Your task to perform on an android device: Open wifi settings Image 0: 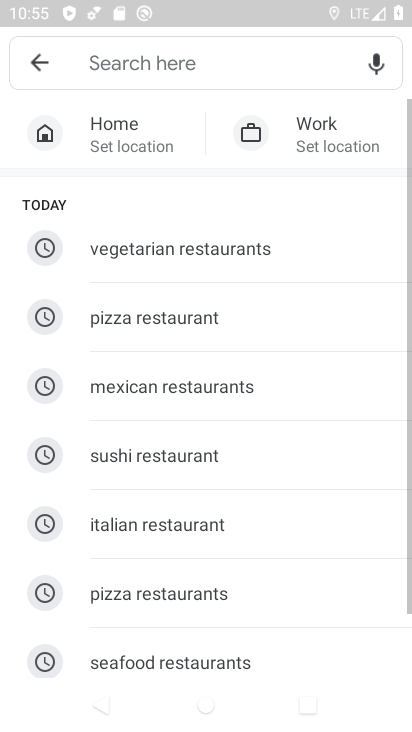
Step 0: press home button
Your task to perform on an android device: Open wifi settings Image 1: 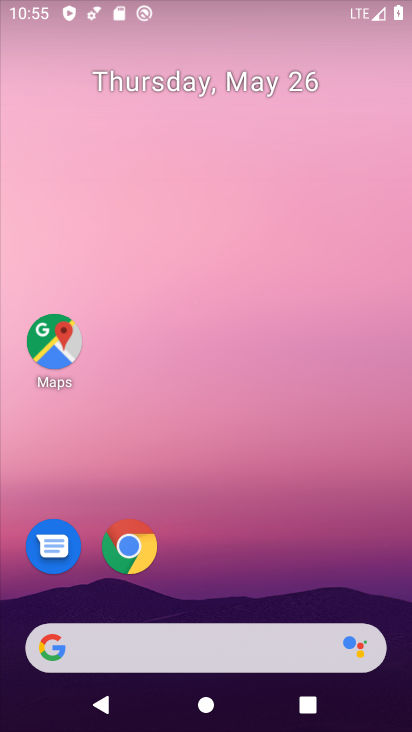
Step 1: drag from (249, 582) to (275, 85)
Your task to perform on an android device: Open wifi settings Image 2: 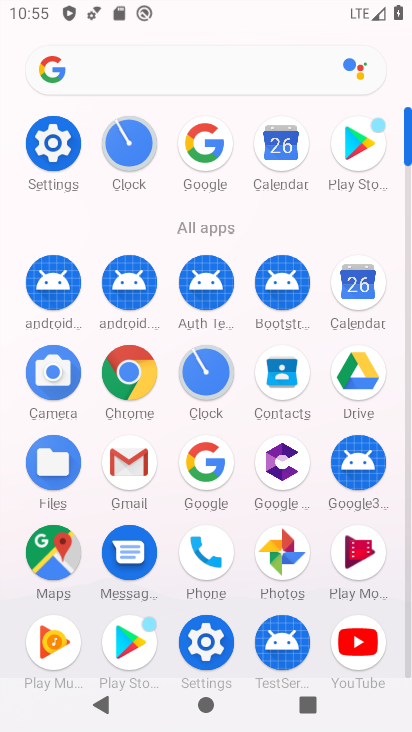
Step 2: click (62, 142)
Your task to perform on an android device: Open wifi settings Image 3: 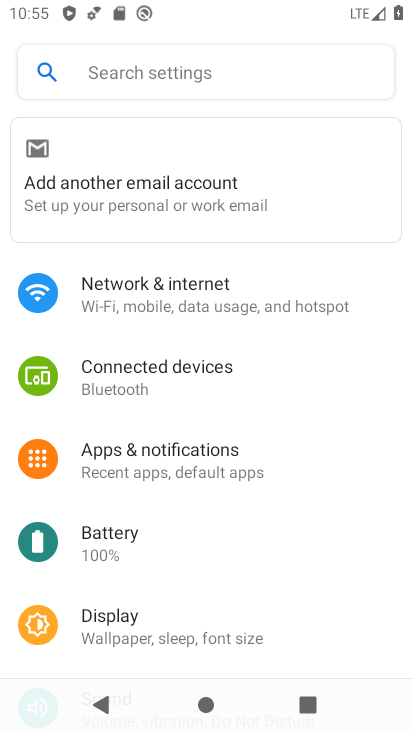
Step 3: click (217, 284)
Your task to perform on an android device: Open wifi settings Image 4: 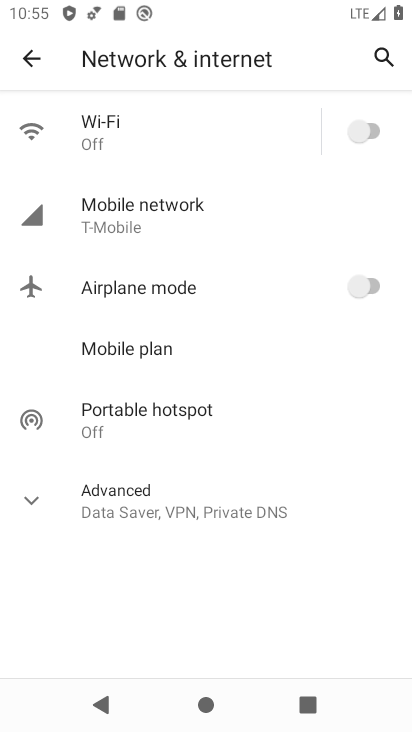
Step 4: click (166, 136)
Your task to perform on an android device: Open wifi settings Image 5: 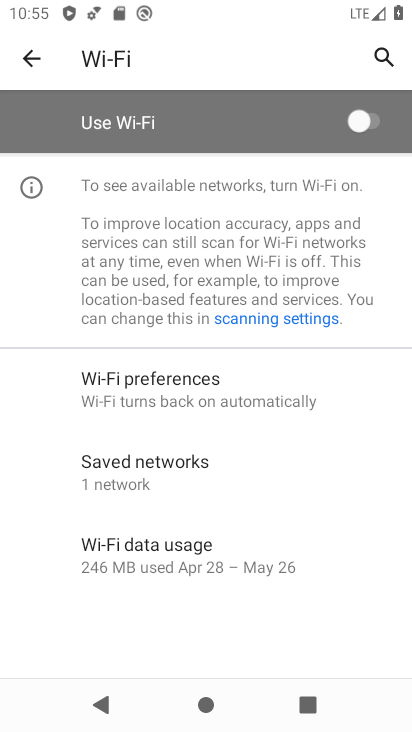
Step 5: click (368, 125)
Your task to perform on an android device: Open wifi settings Image 6: 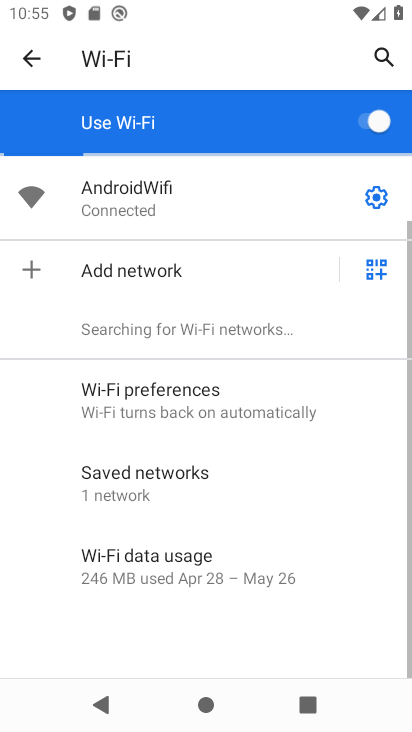
Step 6: click (180, 200)
Your task to perform on an android device: Open wifi settings Image 7: 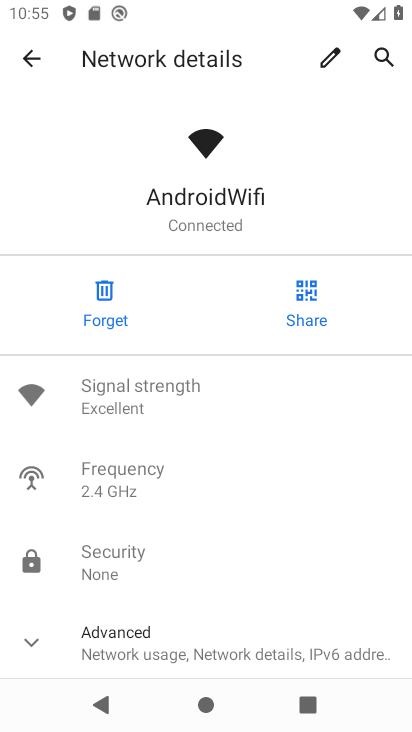
Step 7: task complete